Your task to perform on an android device: install app "Google Duo" Image 0: 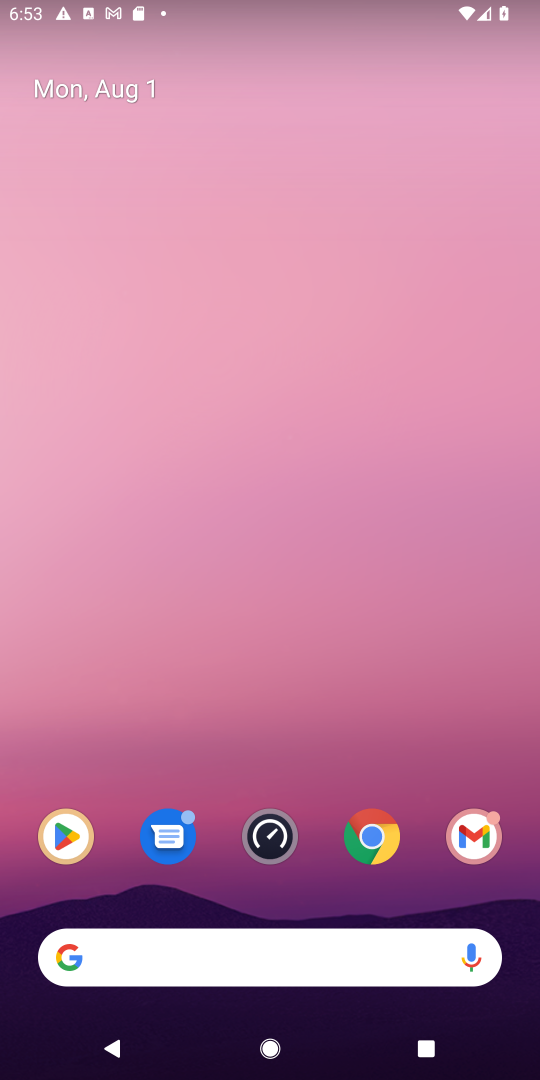
Step 0: press home button
Your task to perform on an android device: install app "Google Duo" Image 1: 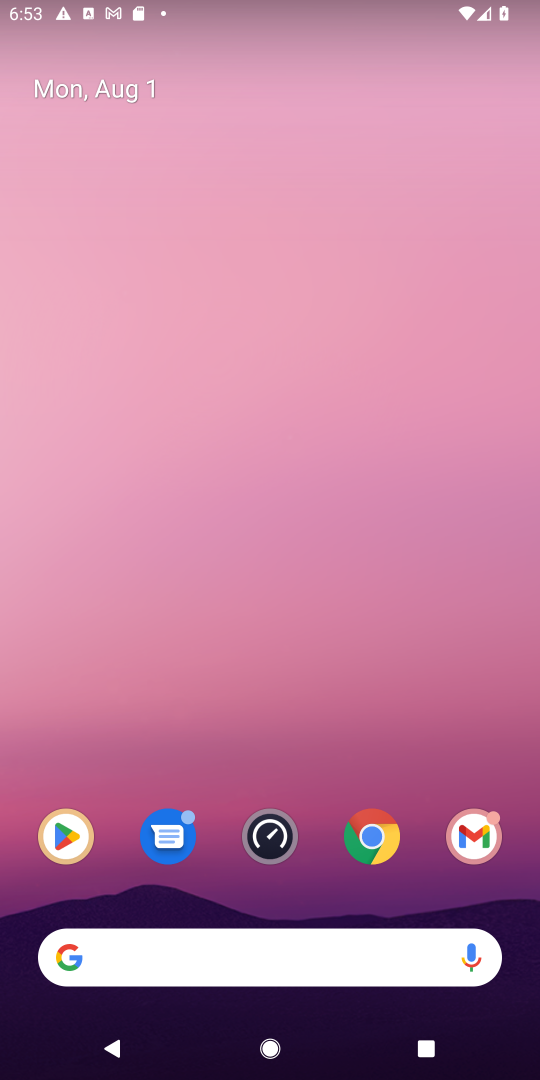
Step 1: click (68, 841)
Your task to perform on an android device: install app "Google Duo" Image 2: 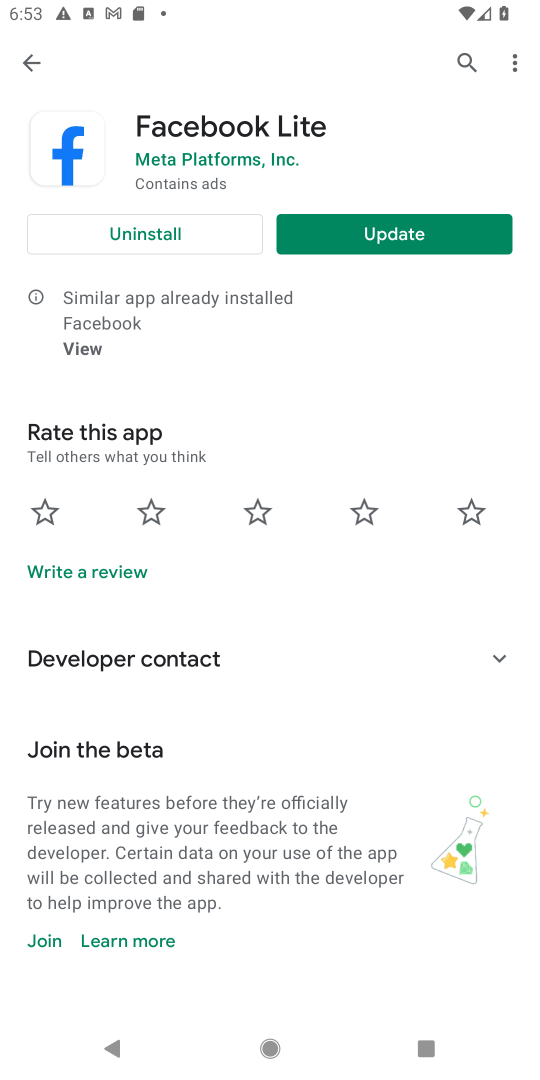
Step 2: click (462, 52)
Your task to perform on an android device: install app "Google Duo" Image 3: 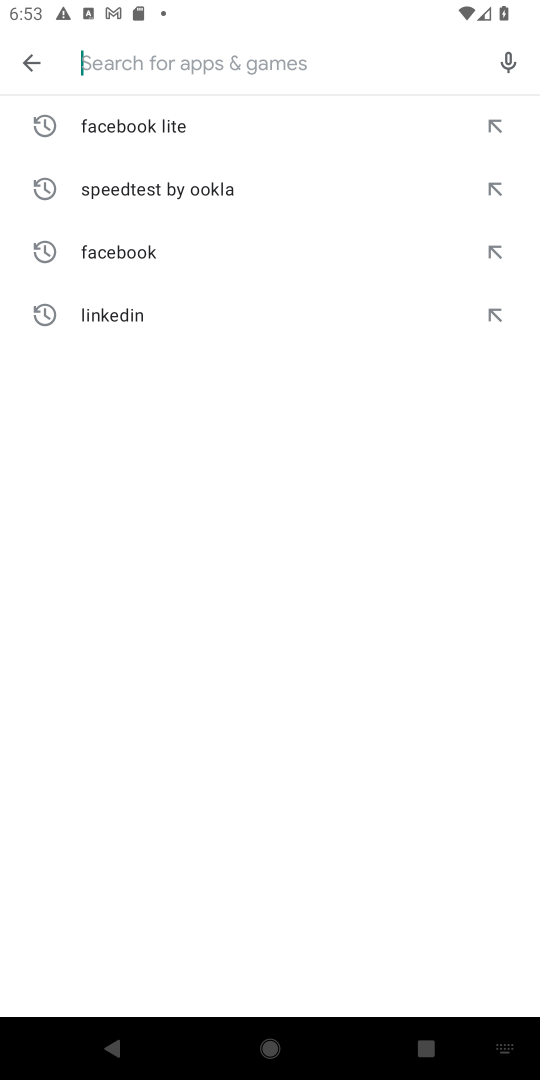
Step 3: type "Google Duo"
Your task to perform on an android device: install app "Google Duo" Image 4: 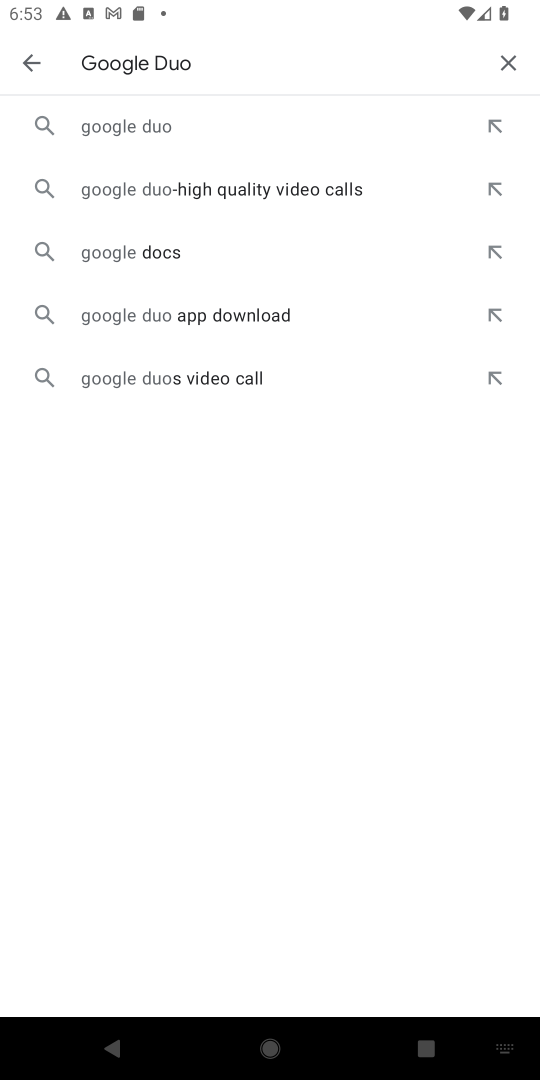
Step 4: click (152, 119)
Your task to perform on an android device: install app "Google Duo" Image 5: 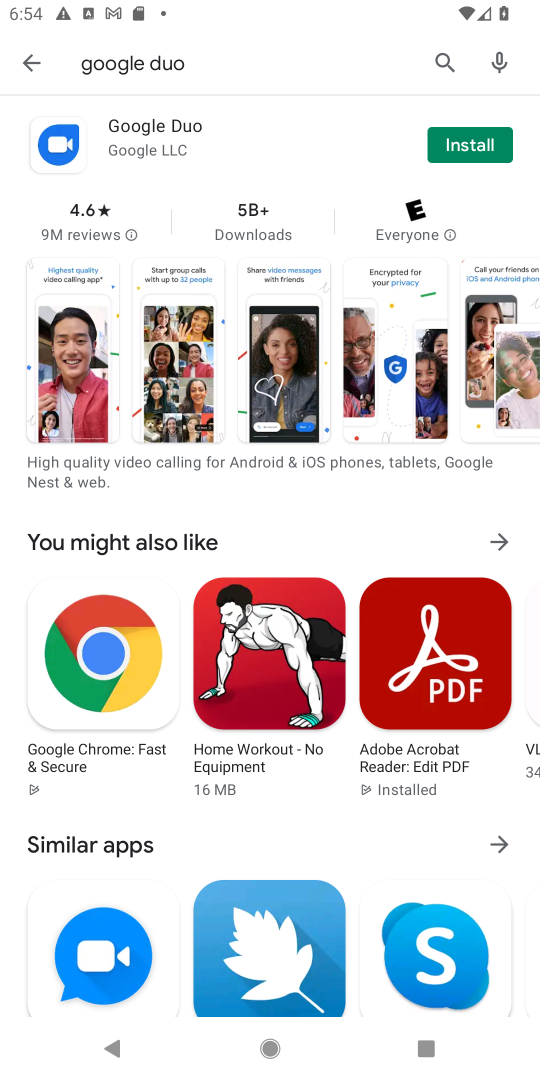
Step 5: click (480, 149)
Your task to perform on an android device: install app "Google Duo" Image 6: 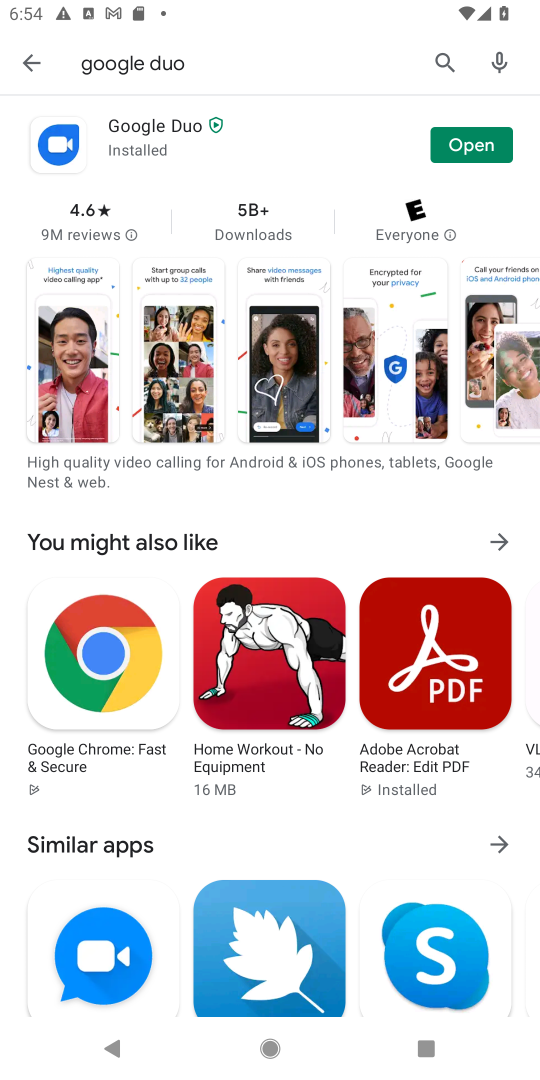
Step 6: task complete